Your task to perform on an android device: turn off location history Image 0: 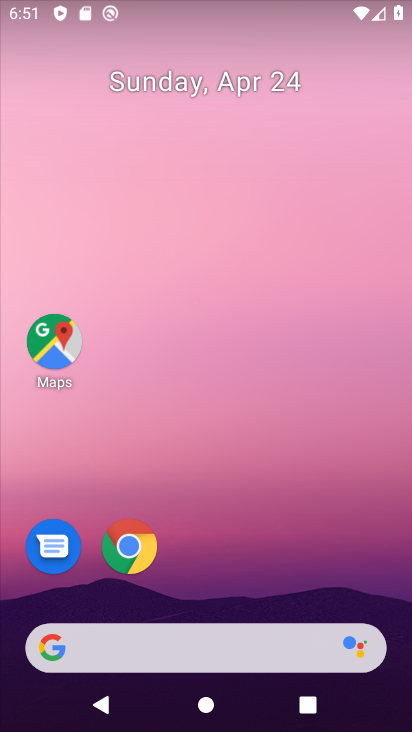
Step 0: click (46, 344)
Your task to perform on an android device: turn off location history Image 1: 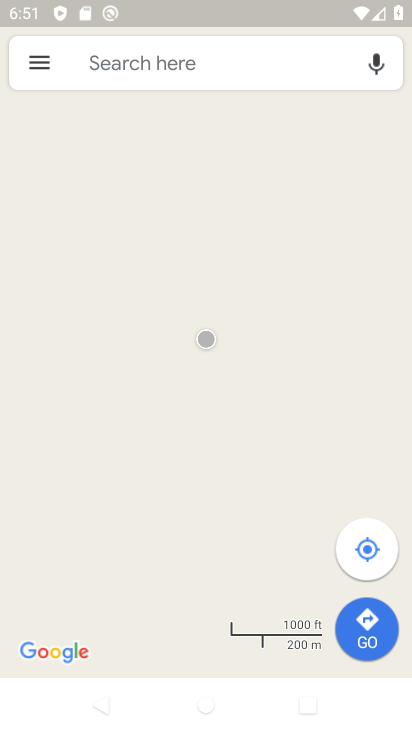
Step 1: click (33, 66)
Your task to perform on an android device: turn off location history Image 2: 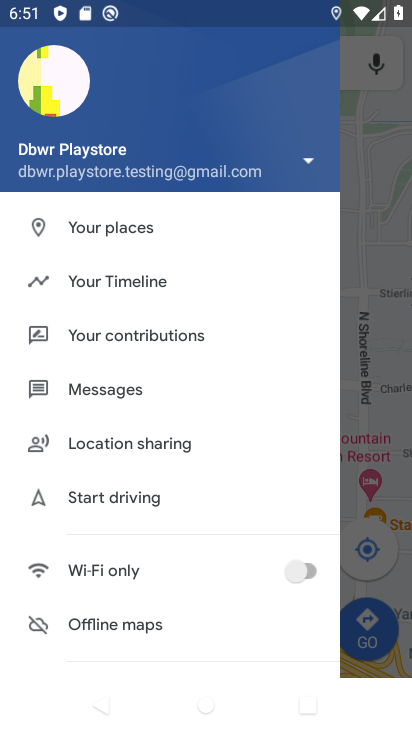
Step 2: click (121, 281)
Your task to perform on an android device: turn off location history Image 3: 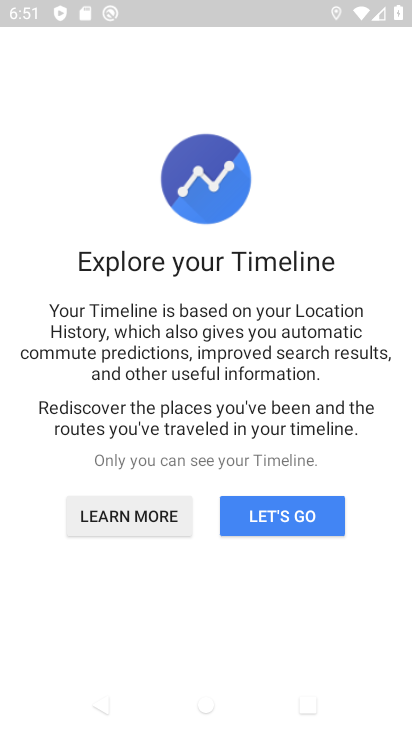
Step 3: click (285, 510)
Your task to perform on an android device: turn off location history Image 4: 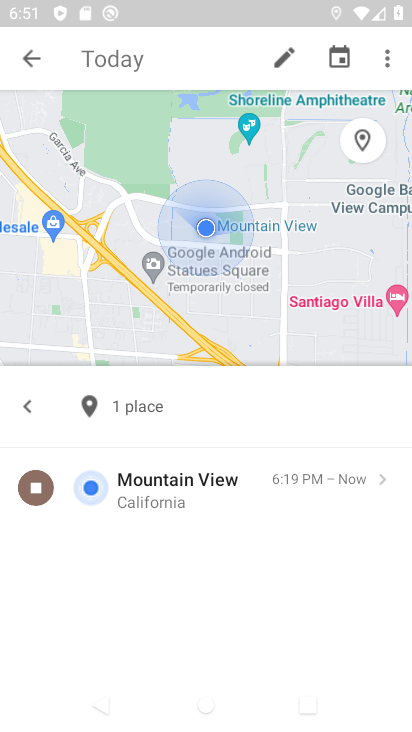
Step 4: click (389, 55)
Your task to perform on an android device: turn off location history Image 5: 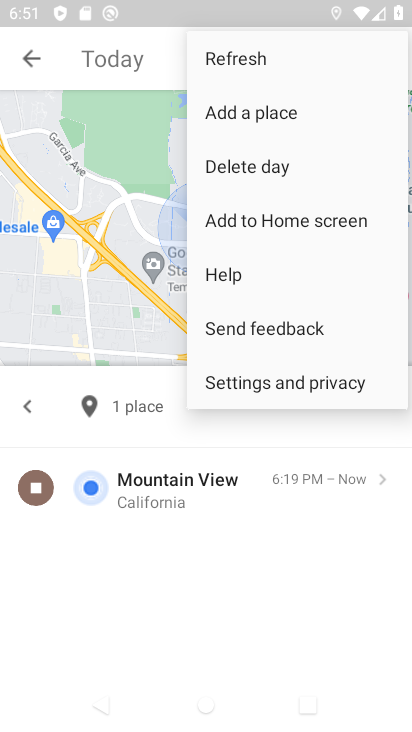
Step 5: click (270, 385)
Your task to perform on an android device: turn off location history Image 6: 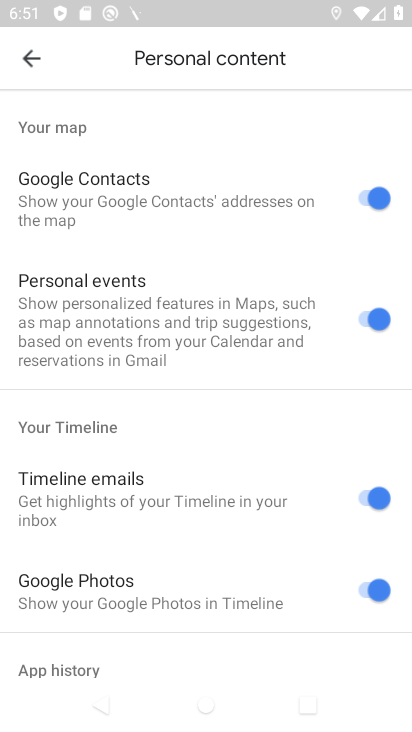
Step 6: drag from (192, 664) to (114, 175)
Your task to perform on an android device: turn off location history Image 7: 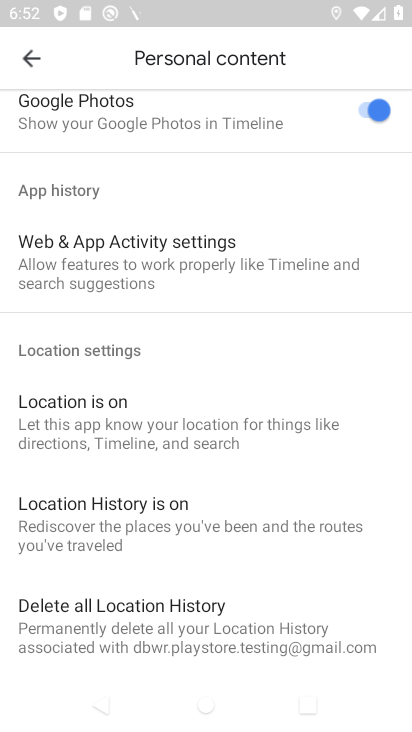
Step 7: click (77, 501)
Your task to perform on an android device: turn off location history Image 8: 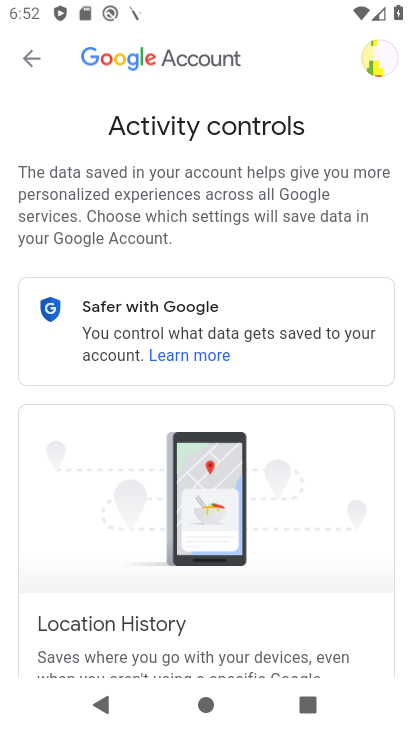
Step 8: drag from (318, 577) to (303, 333)
Your task to perform on an android device: turn off location history Image 9: 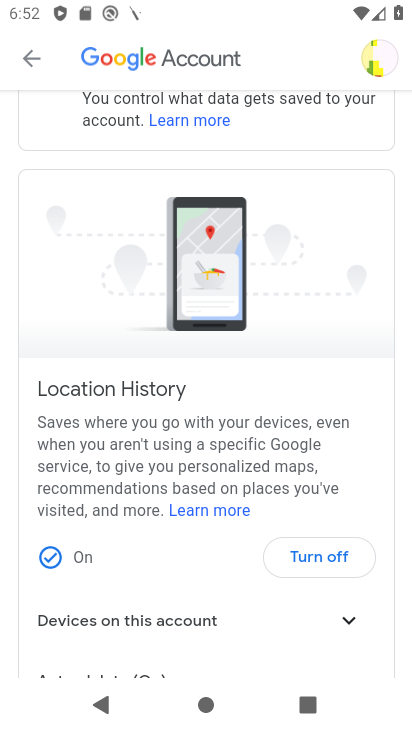
Step 9: click (303, 552)
Your task to perform on an android device: turn off location history Image 10: 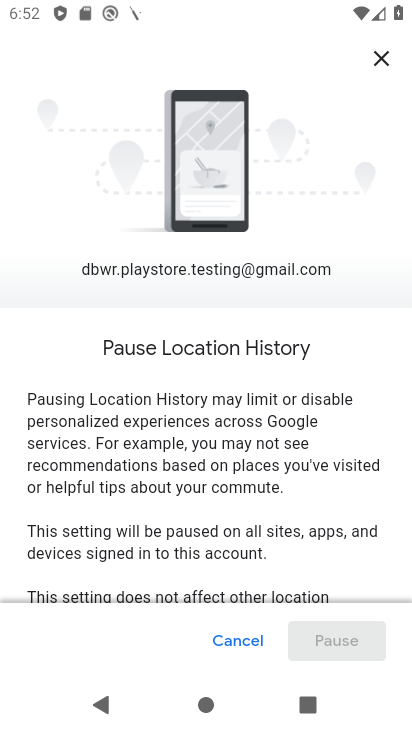
Step 10: drag from (303, 552) to (263, 129)
Your task to perform on an android device: turn off location history Image 11: 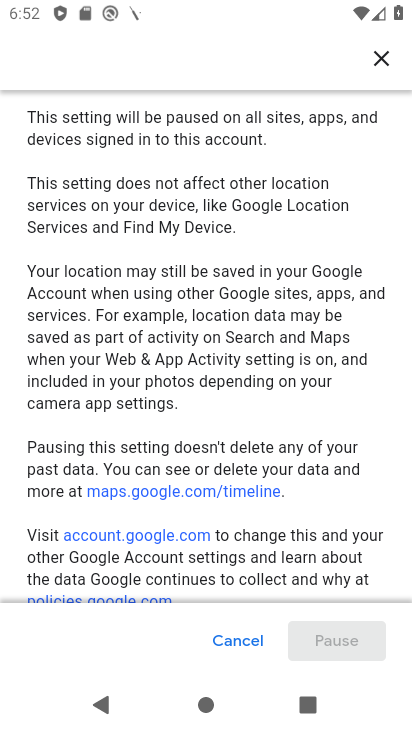
Step 11: drag from (228, 501) to (198, 103)
Your task to perform on an android device: turn off location history Image 12: 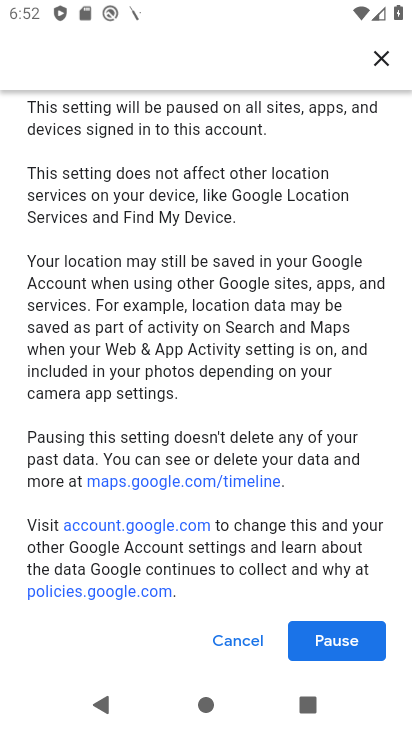
Step 12: click (319, 639)
Your task to perform on an android device: turn off location history Image 13: 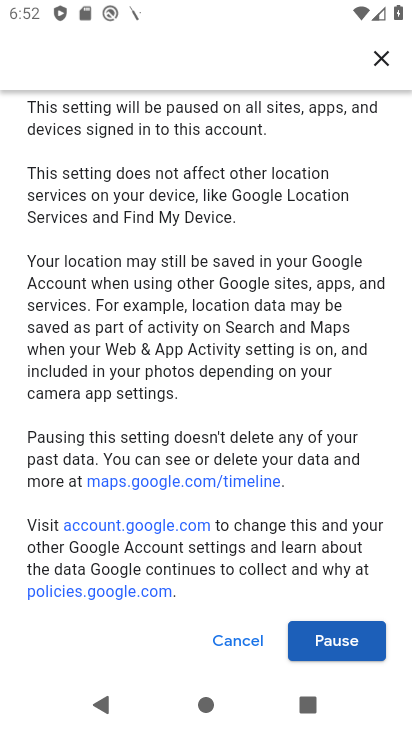
Step 13: click (341, 645)
Your task to perform on an android device: turn off location history Image 14: 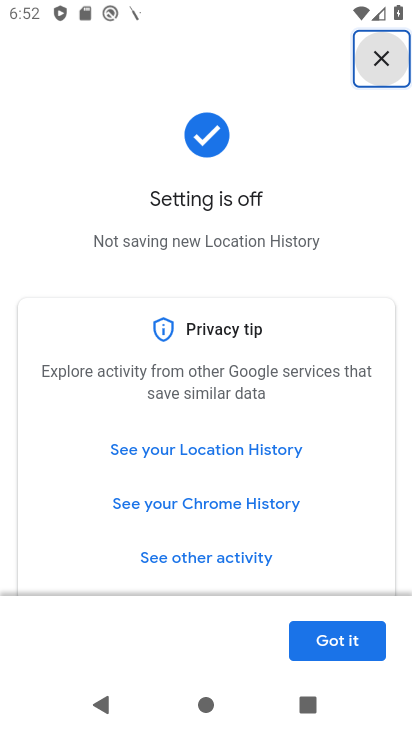
Step 14: click (341, 645)
Your task to perform on an android device: turn off location history Image 15: 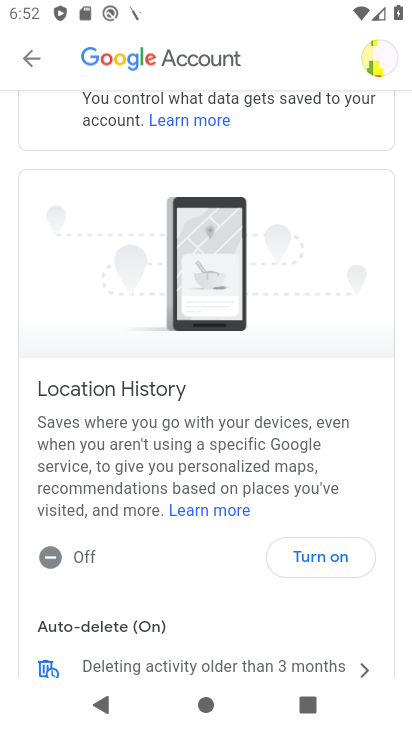
Step 15: task complete